Your task to perform on an android device: Open Google Chrome and open the bookmarks view Image 0: 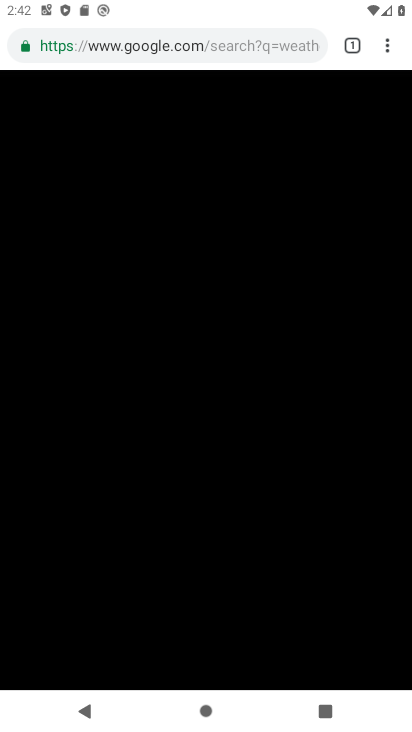
Step 0: drag from (391, 46) to (292, 170)
Your task to perform on an android device: Open Google Chrome and open the bookmarks view Image 1: 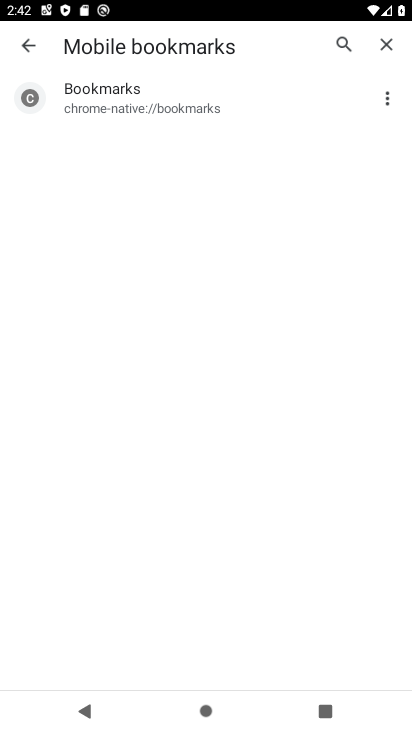
Step 1: task complete